Your task to perform on an android device: When is my next meeting? Image 0: 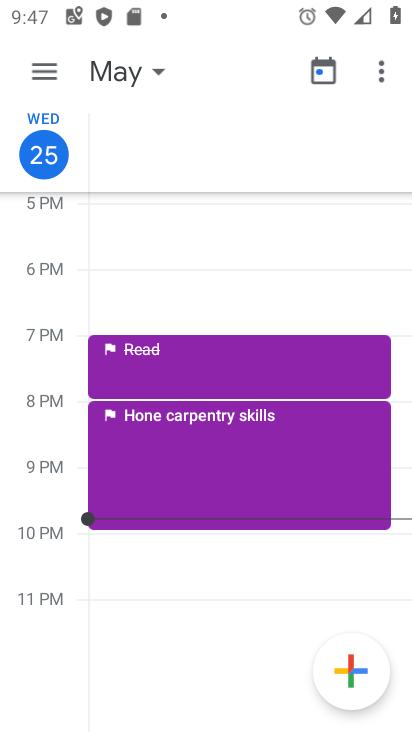
Step 0: drag from (373, 141) to (21, 167)
Your task to perform on an android device: When is my next meeting? Image 1: 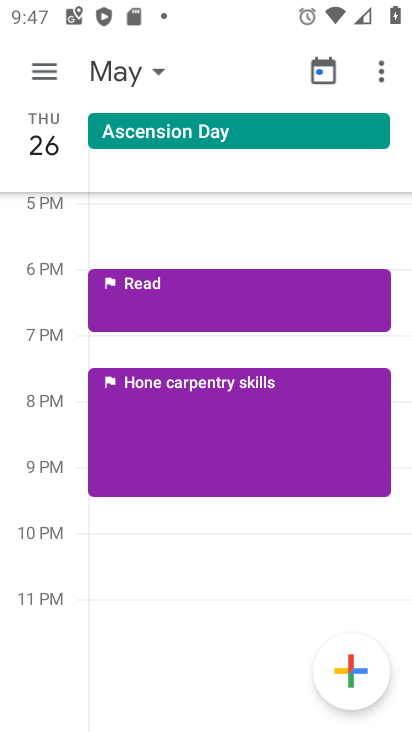
Step 1: drag from (373, 135) to (6, 142)
Your task to perform on an android device: When is my next meeting? Image 2: 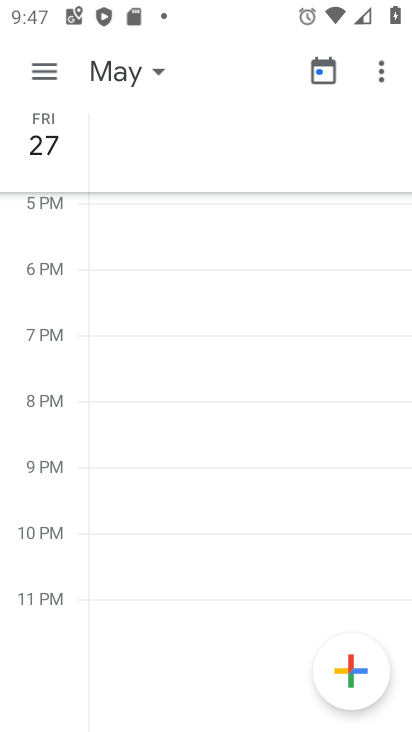
Step 2: click (24, 160)
Your task to perform on an android device: When is my next meeting? Image 3: 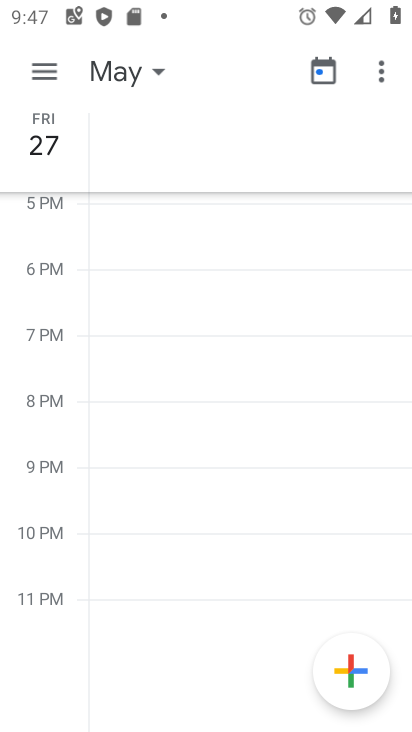
Step 3: click (31, 130)
Your task to perform on an android device: When is my next meeting? Image 4: 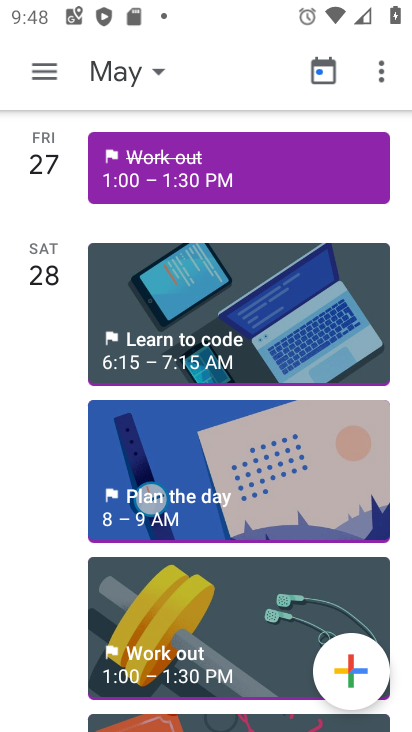
Step 4: task complete